Your task to perform on an android device: turn on bluetooth scan Image 0: 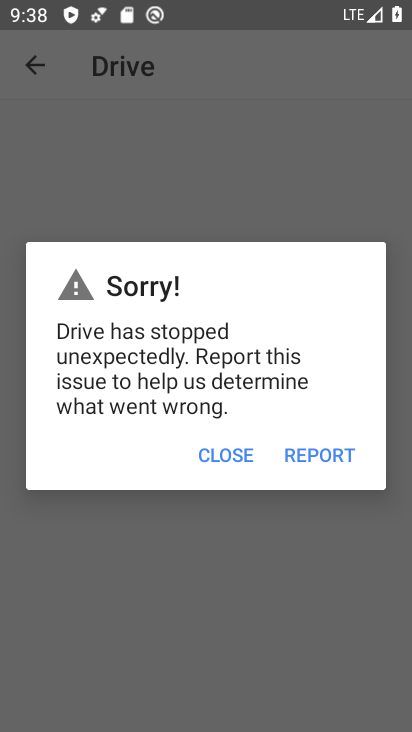
Step 0: press home button
Your task to perform on an android device: turn on bluetooth scan Image 1: 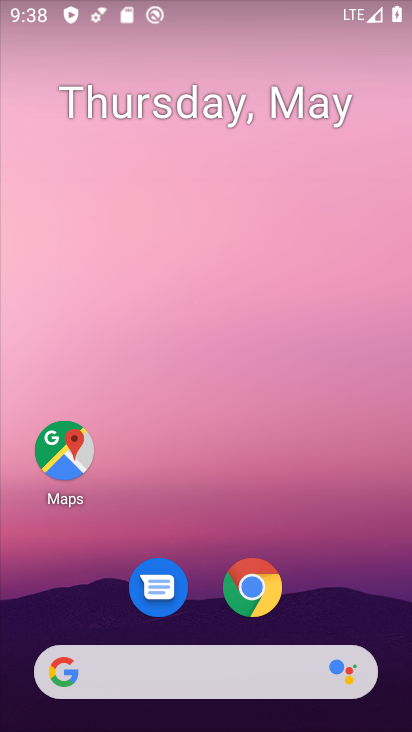
Step 1: drag from (345, 594) to (305, 3)
Your task to perform on an android device: turn on bluetooth scan Image 2: 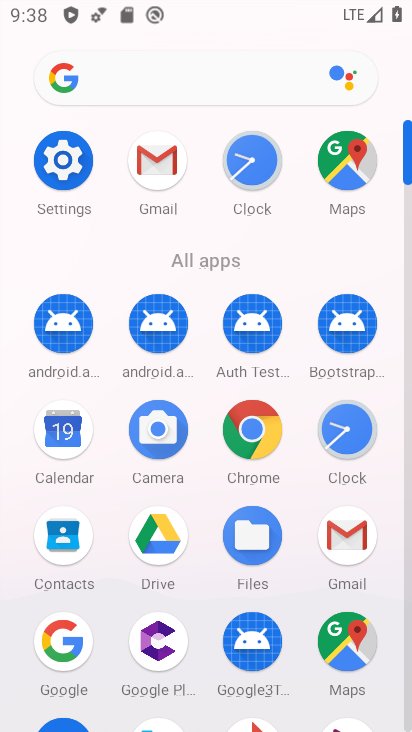
Step 2: click (66, 177)
Your task to perform on an android device: turn on bluetooth scan Image 3: 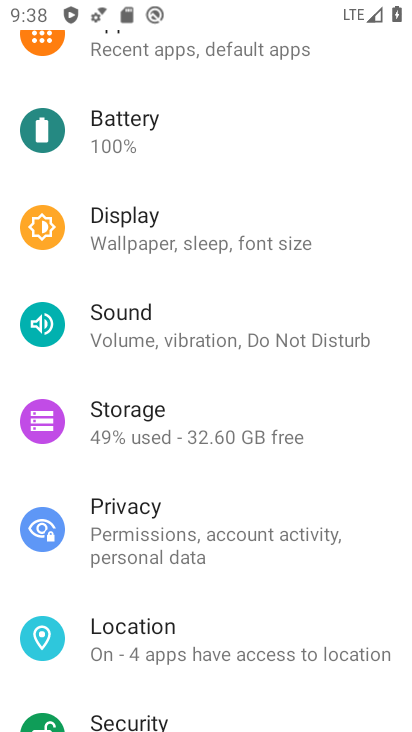
Step 3: click (127, 640)
Your task to perform on an android device: turn on bluetooth scan Image 4: 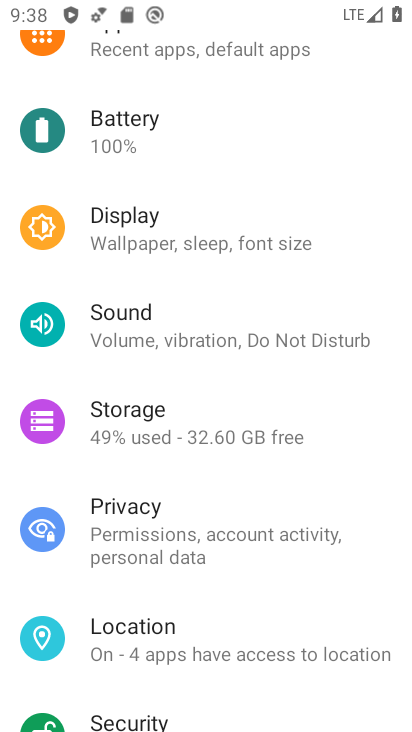
Step 4: click (135, 637)
Your task to perform on an android device: turn on bluetooth scan Image 5: 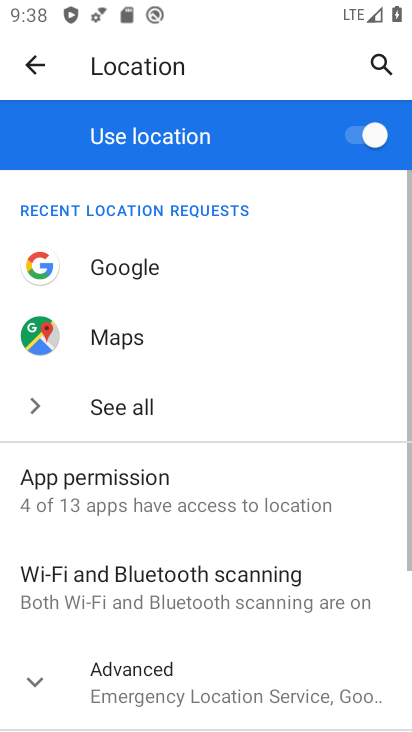
Step 5: click (134, 591)
Your task to perform on an android device: turn on bluetooth scan Image 6: 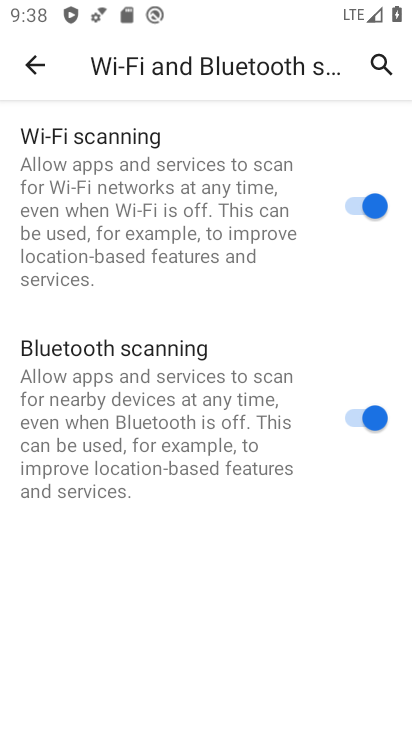
Step 6: task complete